Your task to perform on an android device: turn on showing notifications on the lock screen Image 0: 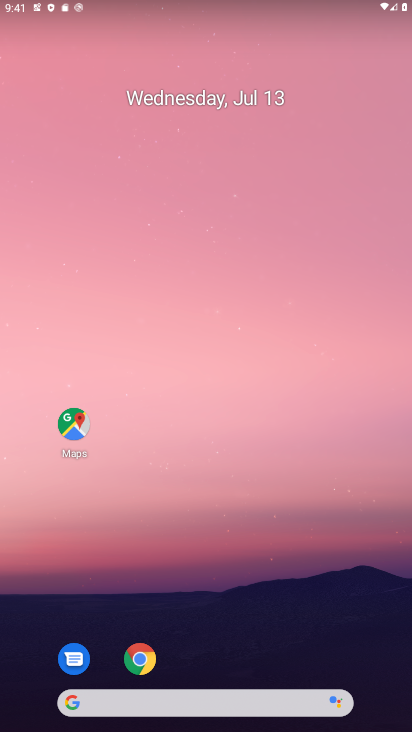
Step 0: drag from (211, 688) to (190, 131)
Your task to perform on an android device: turn on showing notifications on the lock screen Image 1: 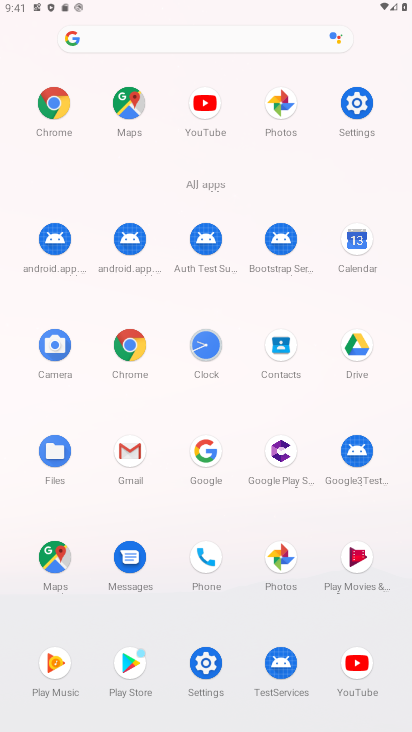
Step 1: click (358, 113)
Your task to perform on an android device: turn on showing notifications on the lock screen Image 2: 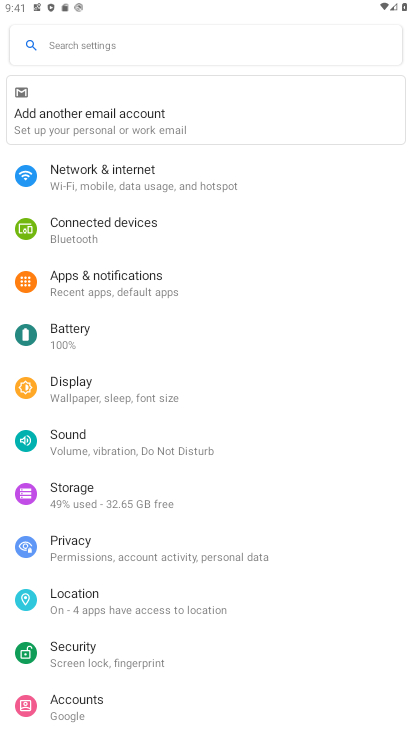
Step 2: click (155, 269)
Your task to perform on an android device: turn on showing notifications on the lock screen Image 3: 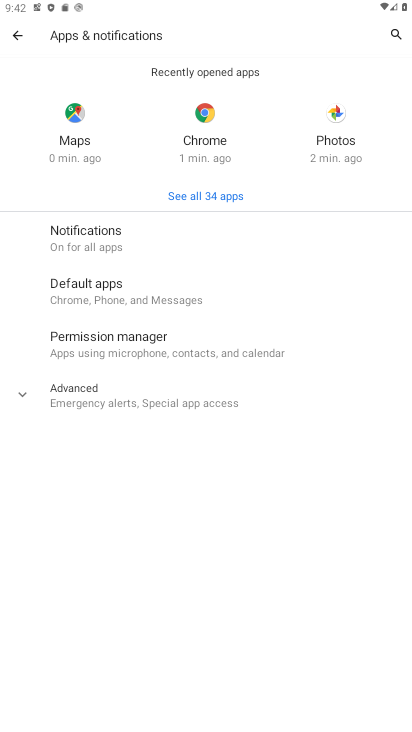
Step 3: click (94, 243)
Your task to perform on an android device: turn on showing notifications on the lock screen Image 4: 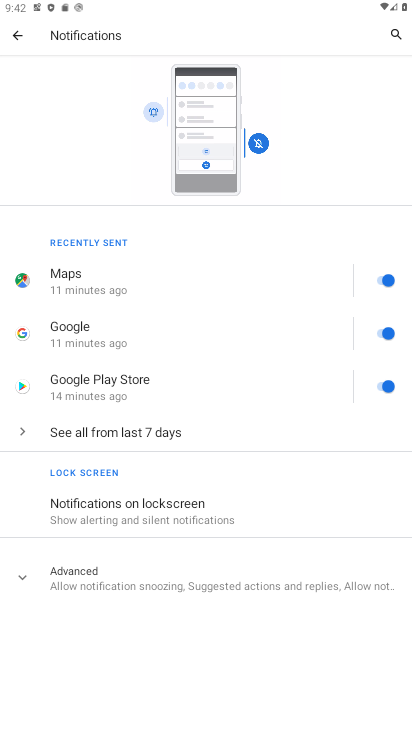
Step 4: click (164, 506)
Your task to perform on an android device: turn on showing notifications on the lock screen Image 5: 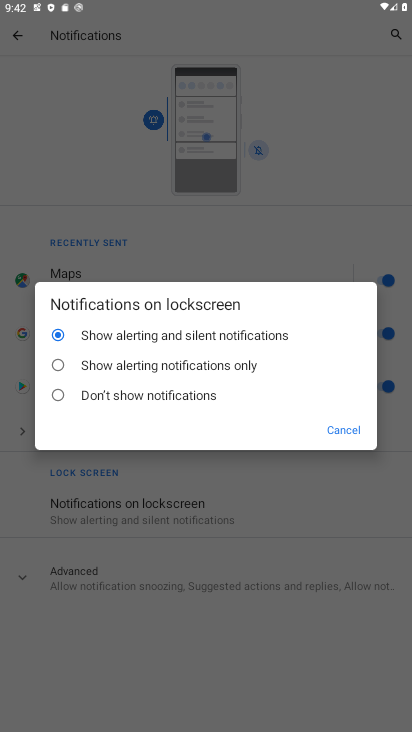
Step 5: click (201, 335)
Your task to perform on an android device: turn on showing notifications on the lock screen Image 6: 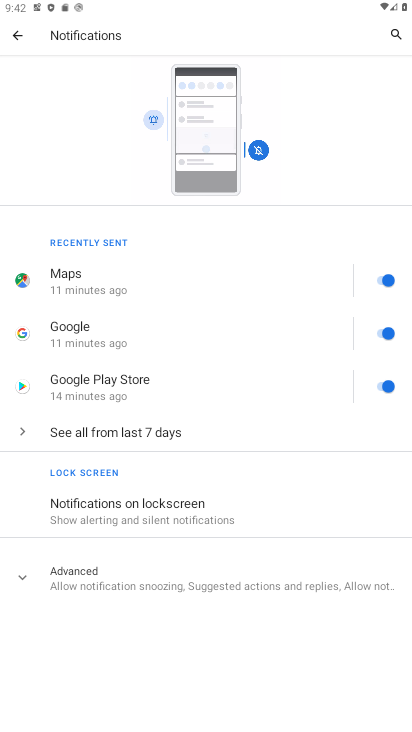
Step 6: task complete